Your task to perform on an android device: Open privacy settings Image 0: 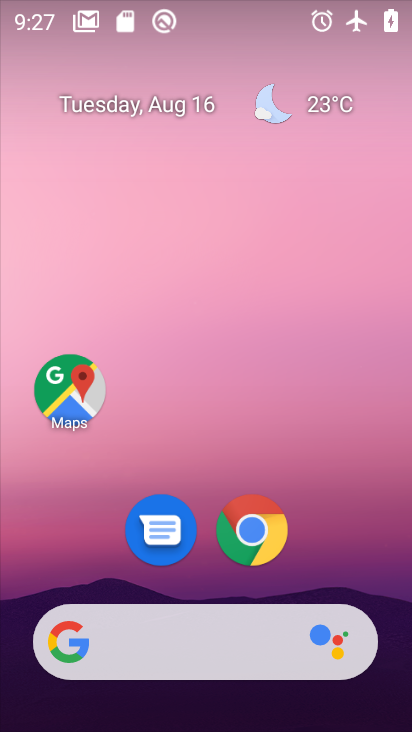
Step 0: drag from (324, 580) to (371, 210)
Your task to perform on an android device: Open privacy settings Image 1: 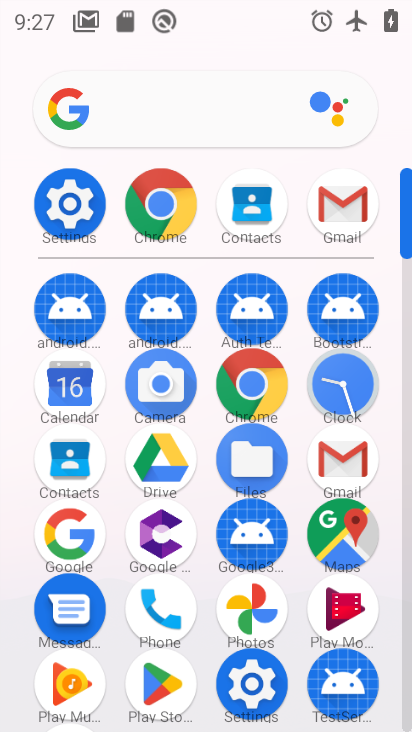
Step 1: click (266, 677)
Your task to perform on an android device: Open privacy settings Image 2: 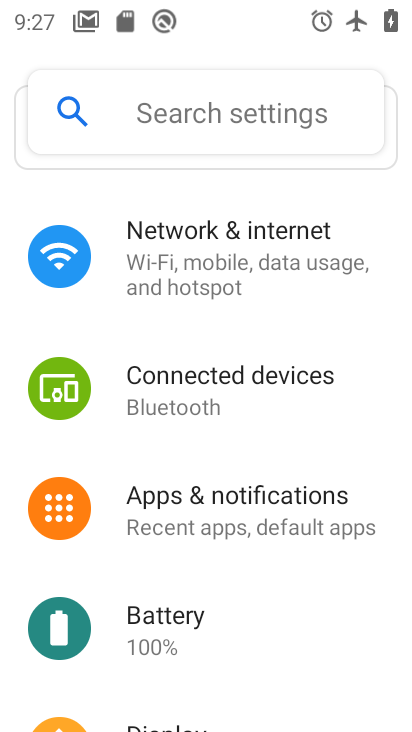
Step 2: drag from (321, 669) to (381, 191)
Your task to perform on an android device: Open privacy settings Image 3: 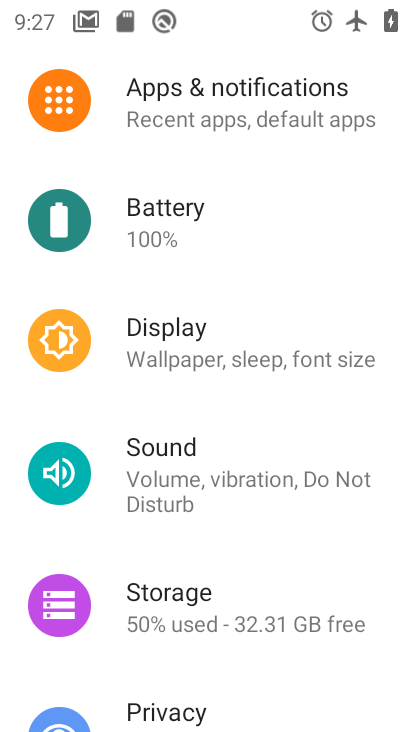
Step 3: click (183, 719)
Your task to perform on an android device: Open privacy settings Image 4: 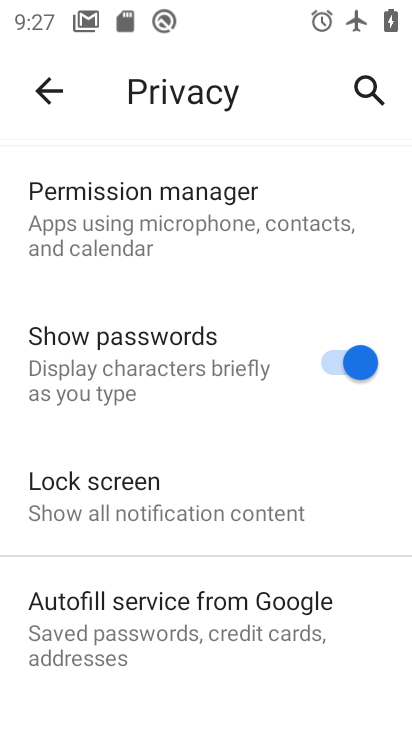
Step 4: task complete